Your task to perform on an android device: delete browsing data in the chrome app Image 0: 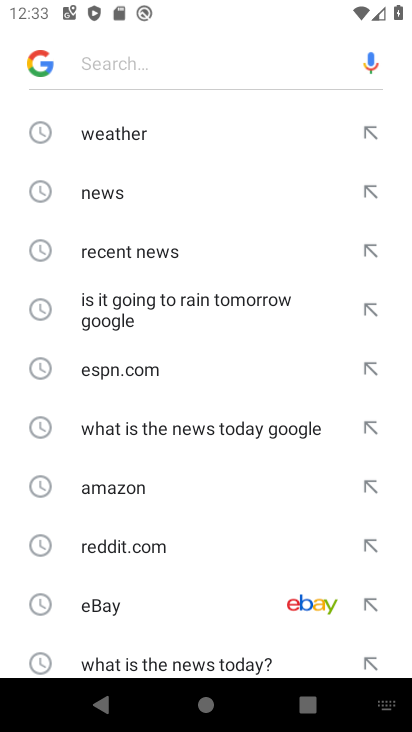
Step 0: press home button
Your task to perform on an android device: delete browsing data in the chrome app Image 1: 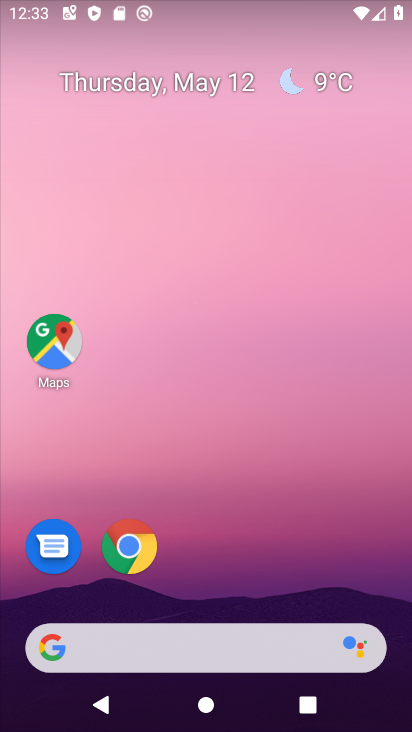
Step 1: click (131, 546)
Your task to perform on an android device: delete browsing data in the chrome app Image 2: 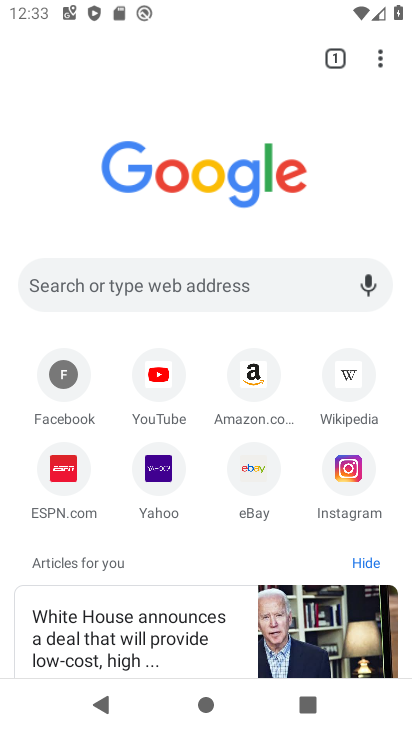
Step 2: task complete